Your task to perform on an android device: empty trash in google photos Image 0: 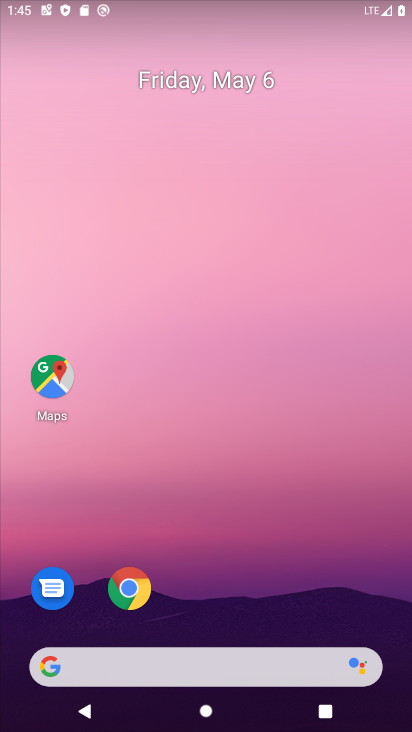
Step 0: drag from (376, 613) to (327, 132)
Your task to perform on an android device: empty trash in google photos Image 1: 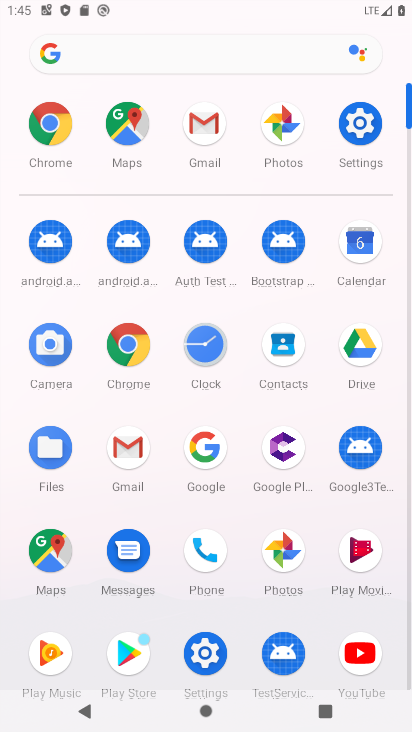
Step 1: press home button
Your task to perform on an android device: empty trash in google photos Image 2: 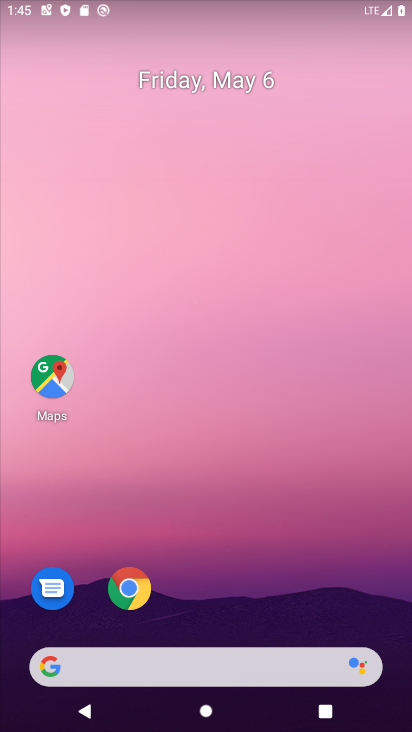
Step 2: drag from (361, 575) to (301, 121)
Your task to perform on an android device: empty trash in google photos Image 3: 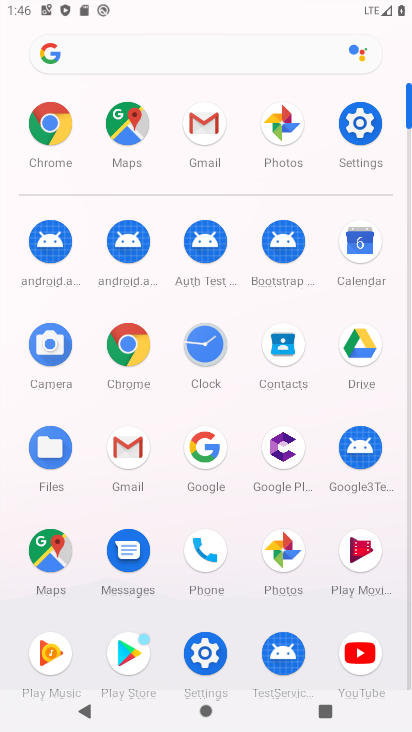
Step 3: click (281, 546)
Your task to perform on an android device: empty trash in google photos Image 4: 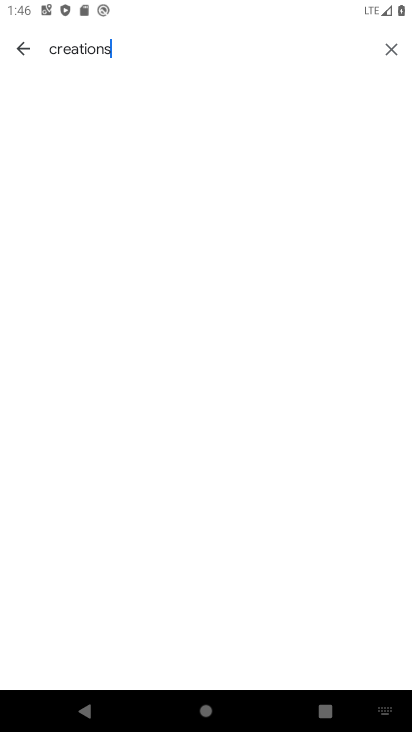
Step 4: click (393, 50)
Your task to perform on an android device: empty trash in google photos Image 5: 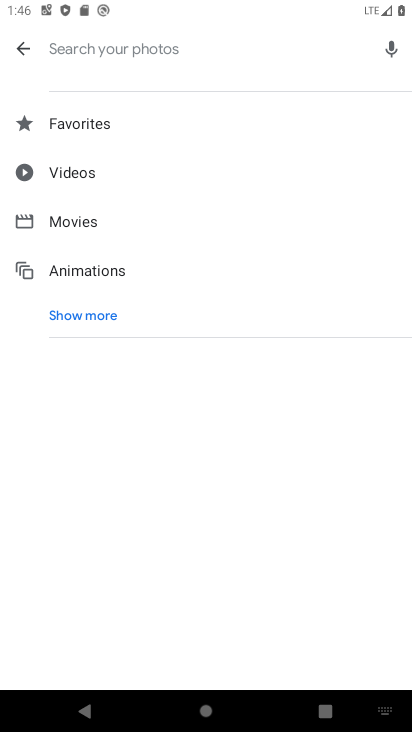
Step 5: click (37, 51)
Your task to perform on an android device: empty trash in google photos Image 6: 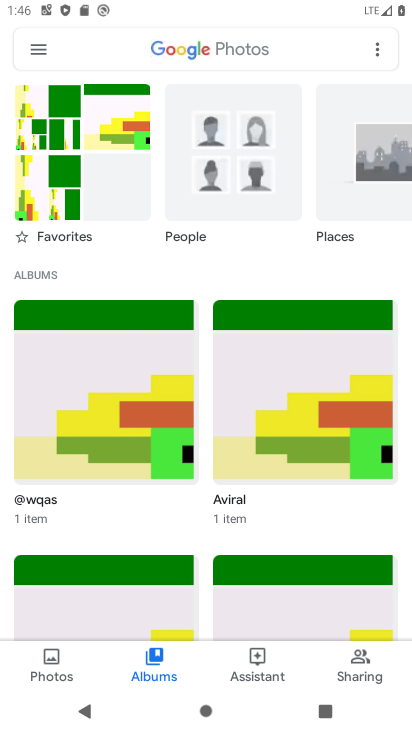
Step 6: click (30, 48)
Your task to perform on an android device: empty trash in google photos Image 7: 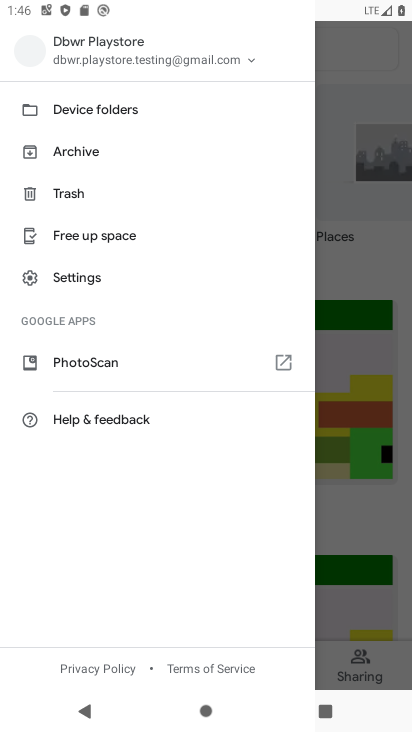
Step 7: click (57, 193)
Your task to perform on an android device: empty trash in google photos Image 8: 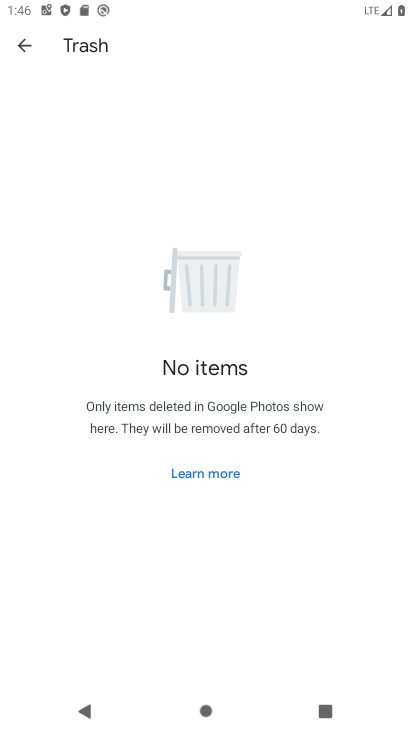
Step 8: task complete